Your task to perform on an android device: Open Google Chrome Image 0: 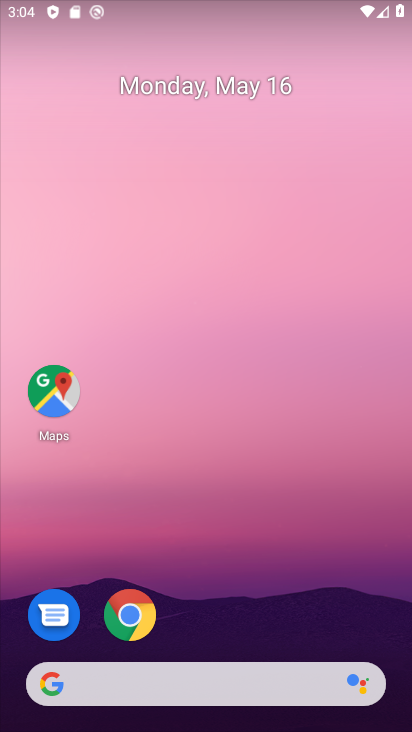
Step 0: click (127, 611)
Your task to perform on an android device: Open Google Chrome Image 1: 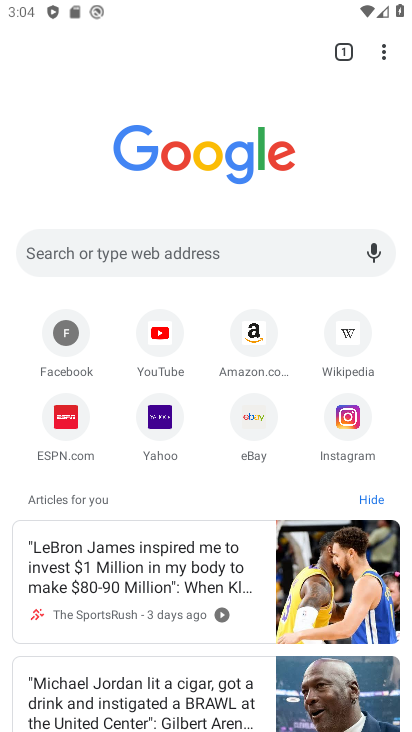
Step 1: task complete